Your task to perform on an android device: turn off location history Image 0: 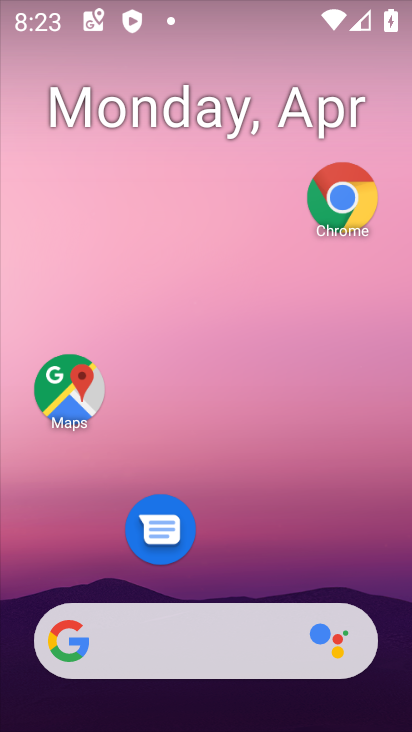
Step 0: drag from (220, 547) to (283, 106)
Your task to perform on an android device: turn off location history Image 1: 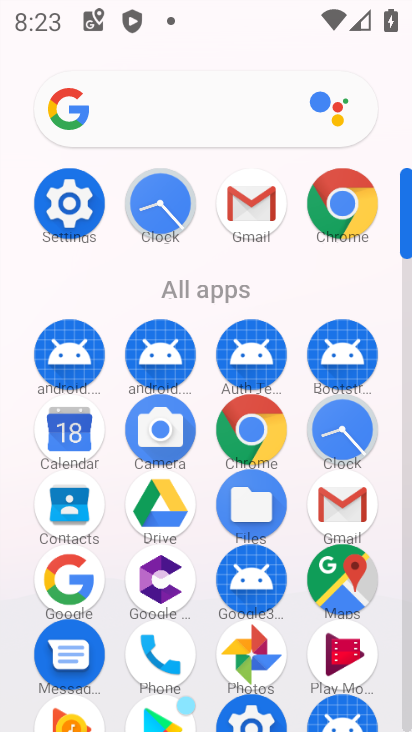
Step 1: click (78, 200)
Your task to perform on an android device: turn off location history Image 2: 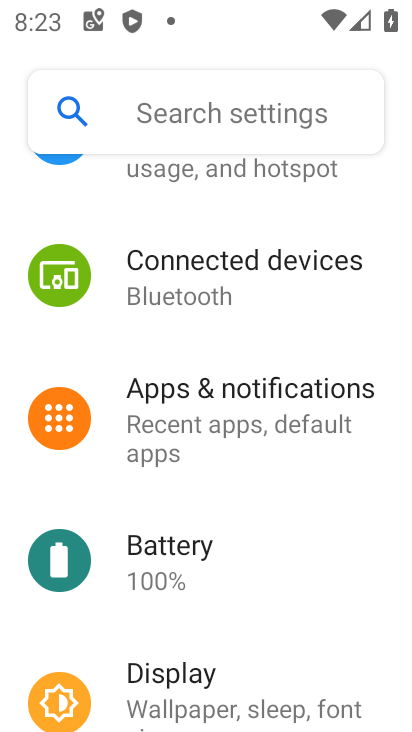
Step 2: drag from (217, 600) to (388, 64)
Your task to perform on an android device: turn off location history Image 3: 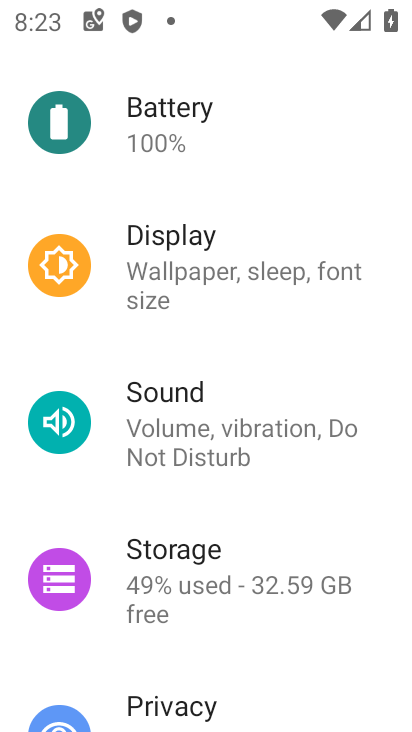
Step 3: drag from (167, 649) to (318, 83)
Your task to perform on an android device: turn off location history Image 4: 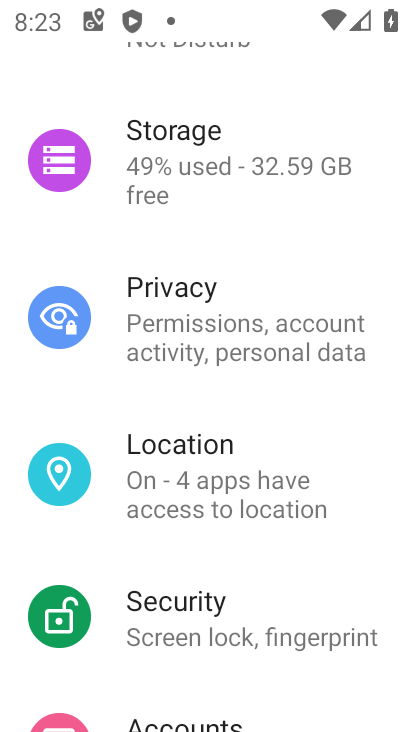
Step 4: click (207, 487)
Your task to perform on an android device: turn off location history Image 5: 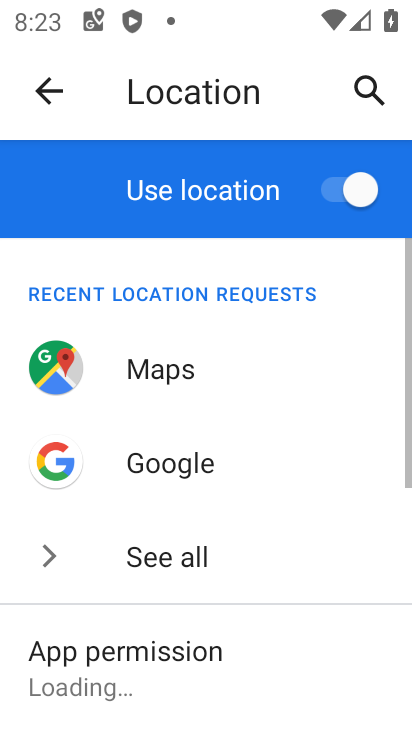
Step 5: drag from (146, 655) to (299, 113)
Your task to perform on an android device: turn off location history Image 6: 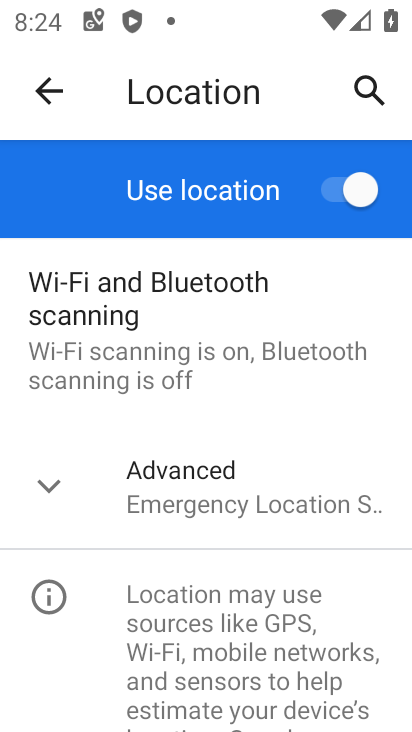
Step 6: click (204, 485)
Your task to perform on an android device: turn off location history Image 7: 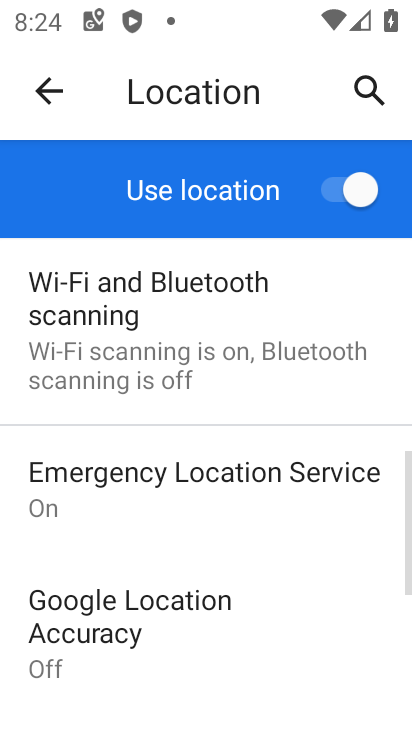
Step 7: drag from (155, 637) to (302, 289)
Your task to perform on an android device: turn off location history Image 8: 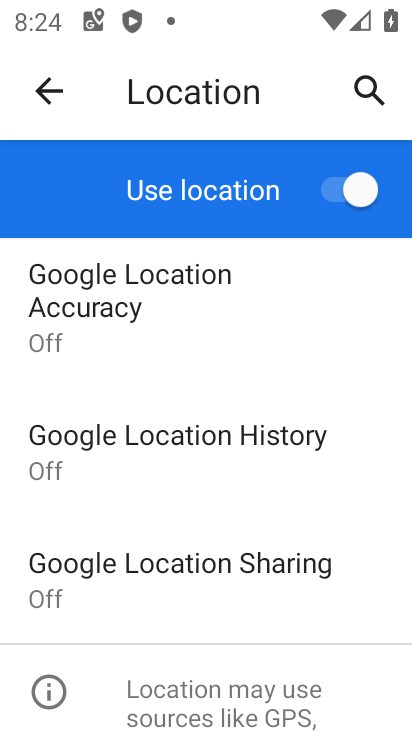
Step 8: click (177, 443)
Your task to perform on an android device: turn off location history Image 9: 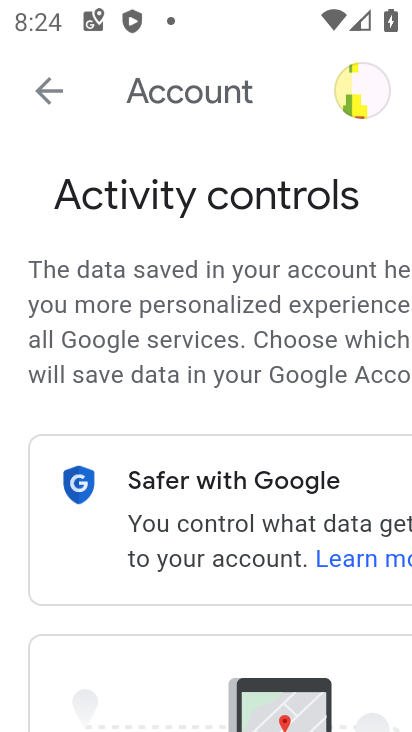
Step 9: drag from (203, 603) to (325, 131)
Your task to perform on an android device: turn off location history Image 10: 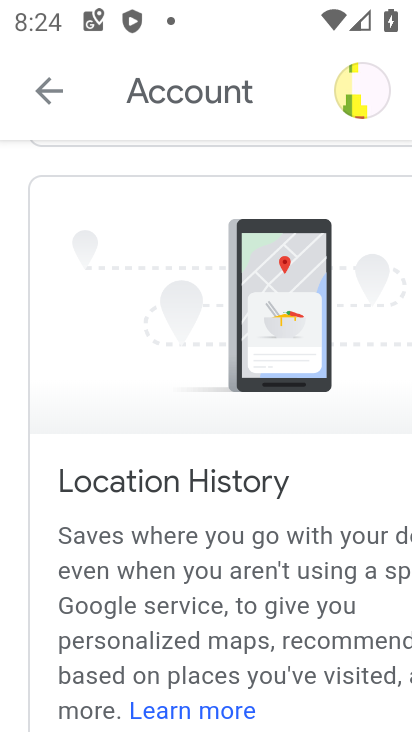
Step 10: drag from (187, 558) to (256, 172)
Your task to perform on an android device: turn off location history Image 11: 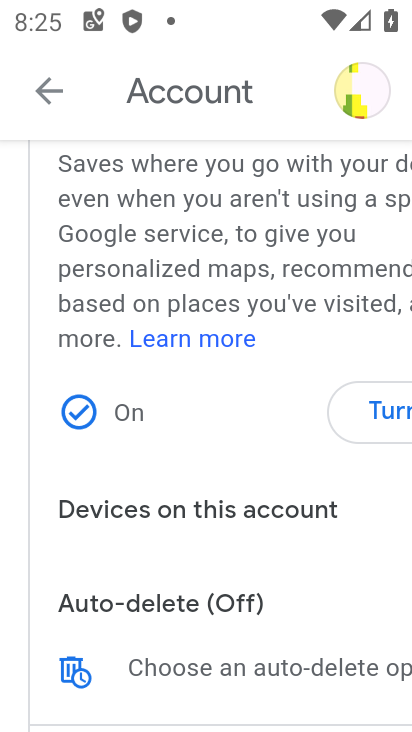
Step 11: click (360, 407)
Your task to perform on an android device: turn off location history Image 12: 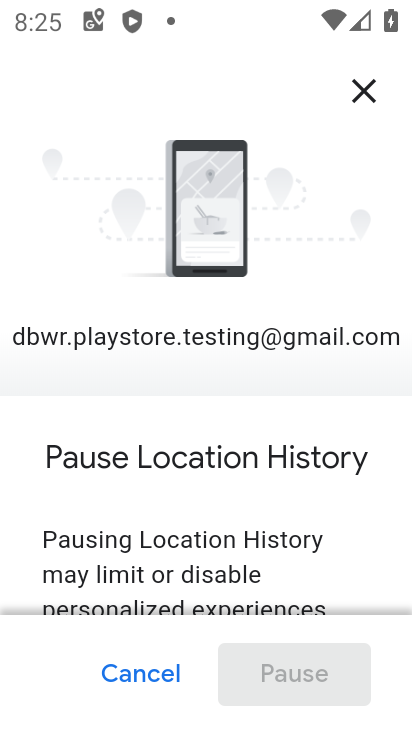
Step 12: drag from (238, 506) to (324, 10)
Your task to perform on an android device: turn off location history Image 13: 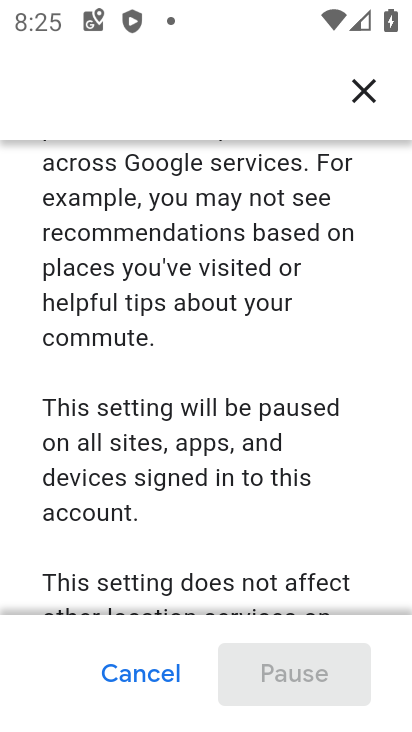
Step 13: drag from (204, 446) to (309, 23)
Your task to perform on an android device: turn off location history Image 14: 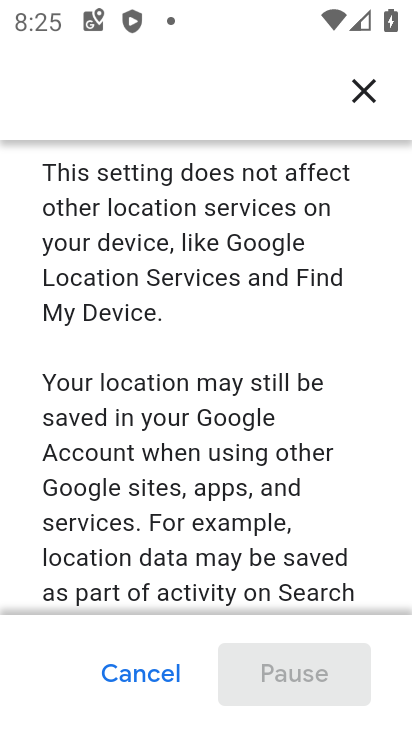
Step 14: drag from (205, 400) to (277, 146)
Your task to perform on an android device: turn off location history Image 15: 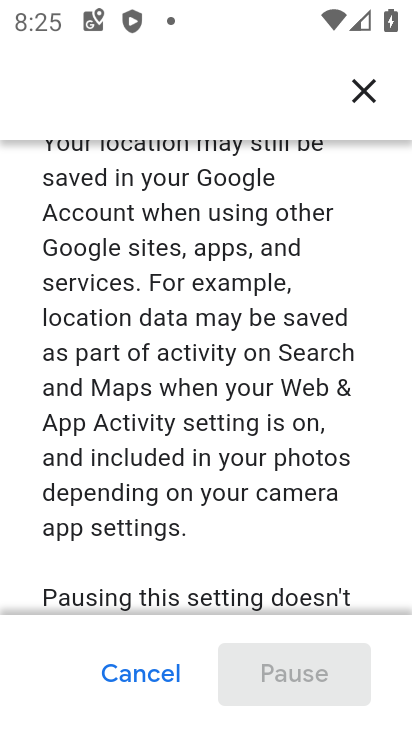
Step 15: drag from (255, 531) to (347, 138)
Your task to perform on an android device: turn off location history Image 16: 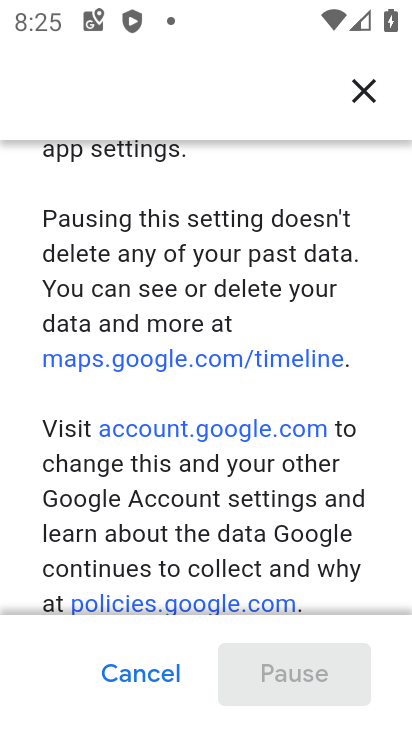
Step 16: drag from (247, 485) to (291, 107)
Your task to perform on an android device: turn off location history Image 17: 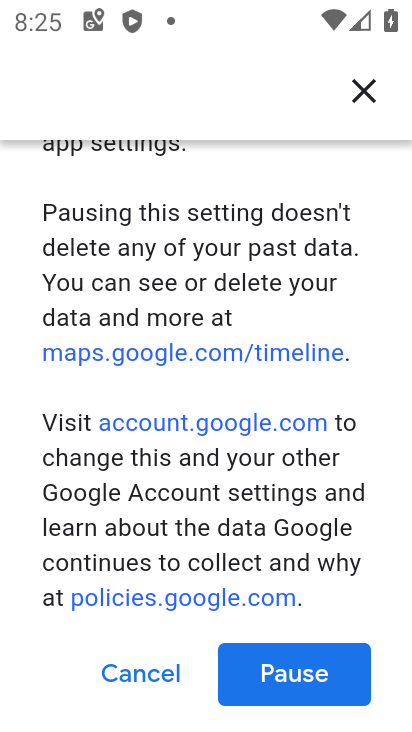
Step 17: drag from (184, 532) to (232, 201)
Your task to perform on an android device: turn off location history Image 18: 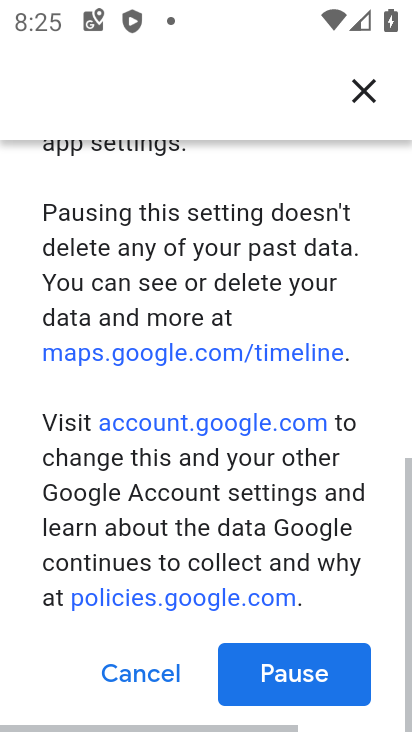
Step 18: click (261, 682)
Your task to perform on an android device: turn off location history Image 19: 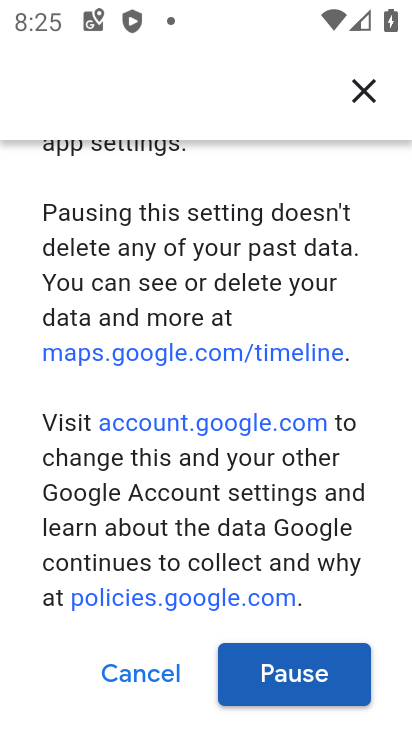
Step 19: click (320, 673)
Your task to perform on an android device: turn off location history Image 20: 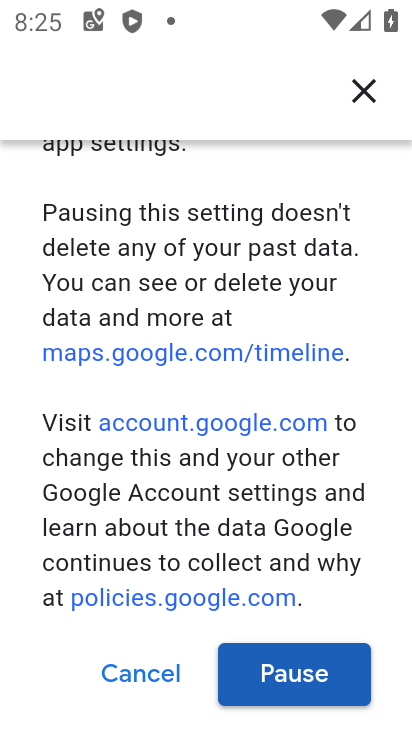
Step 20: click (293, 674)
Your task to perform on an android device: turn off location history Image 21: 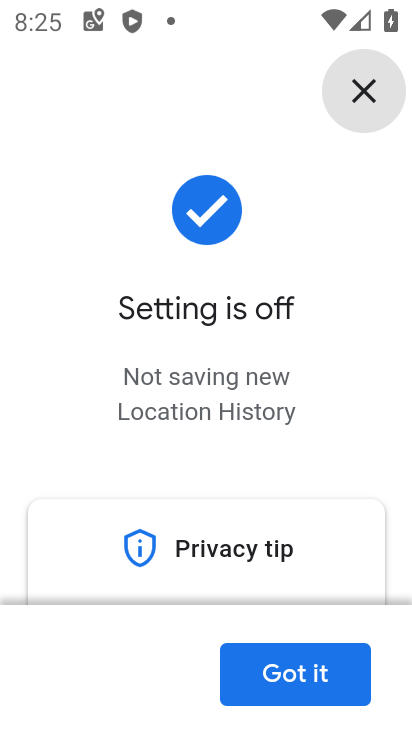
Step 21: task complete